Your task to perform on an android device: open wifi settings Image 0: 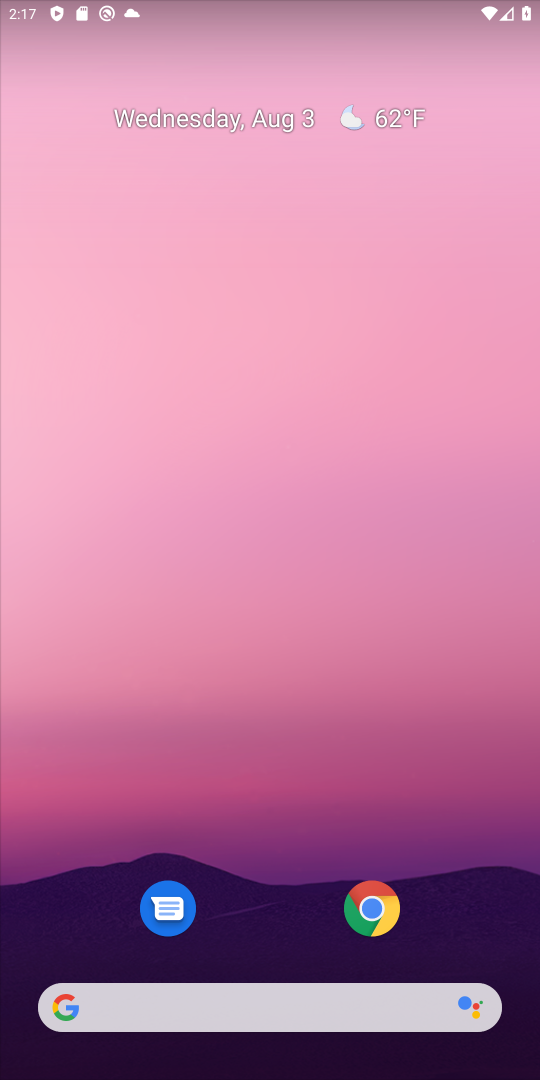
Step 0: drag from (230, 853) to (345, 305)
Your task to perform on an android device: open wifi settings Image 1: 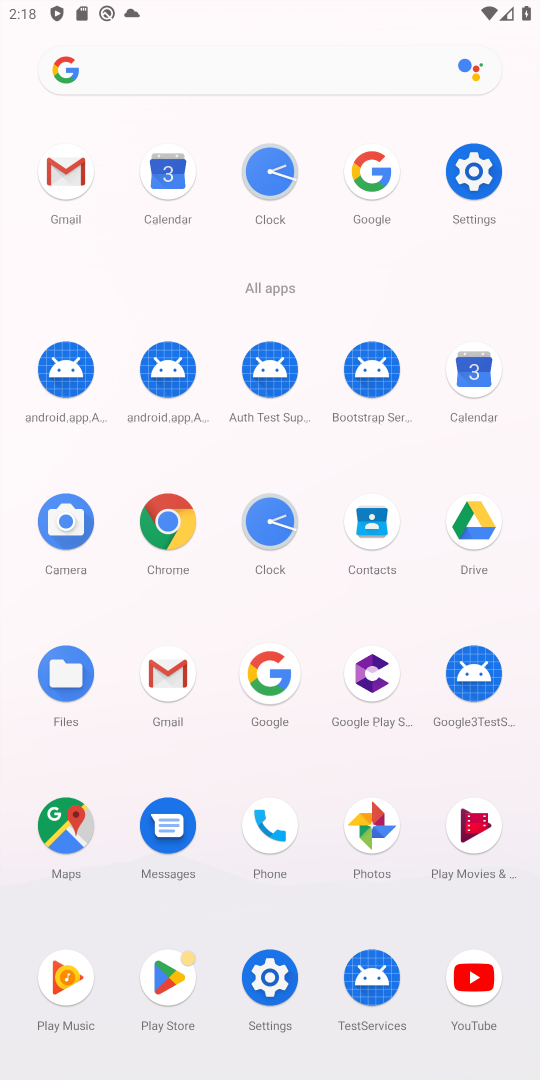
Step 1: click (472, 171)
Your task to perform on an android device: open wifi settings Image 2: 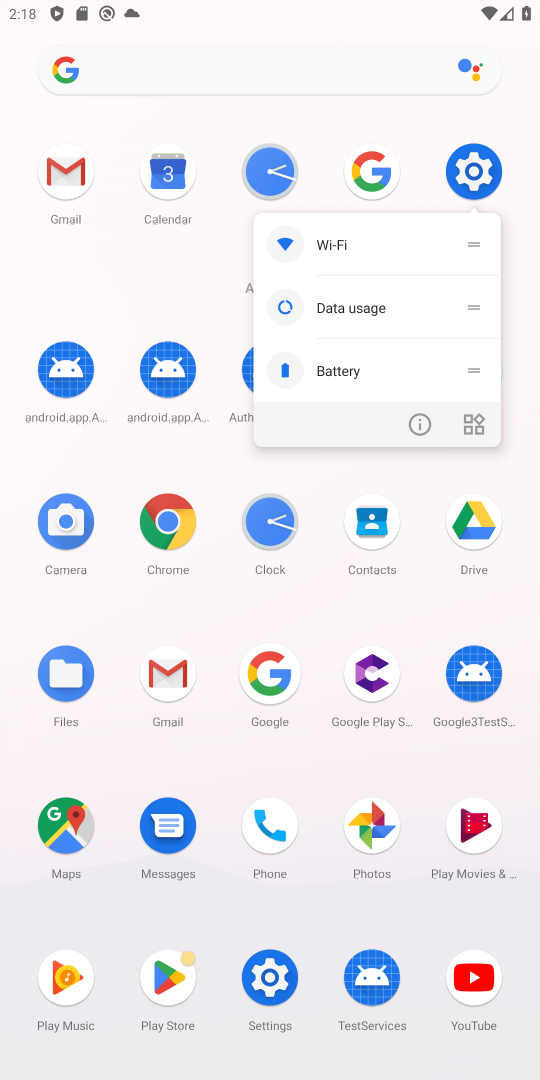
Step 2: click (472, 171)
Your task to perform on an android device: open wifi settings Image 3: 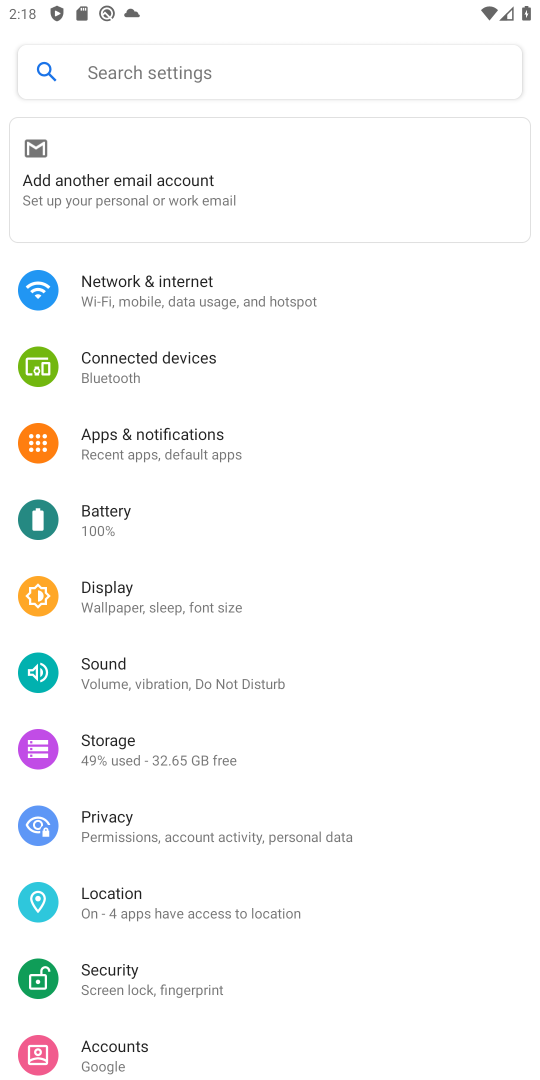
Step 3: click (213, 294)
Your task to perform on an android device: open wifi settings Image 4: 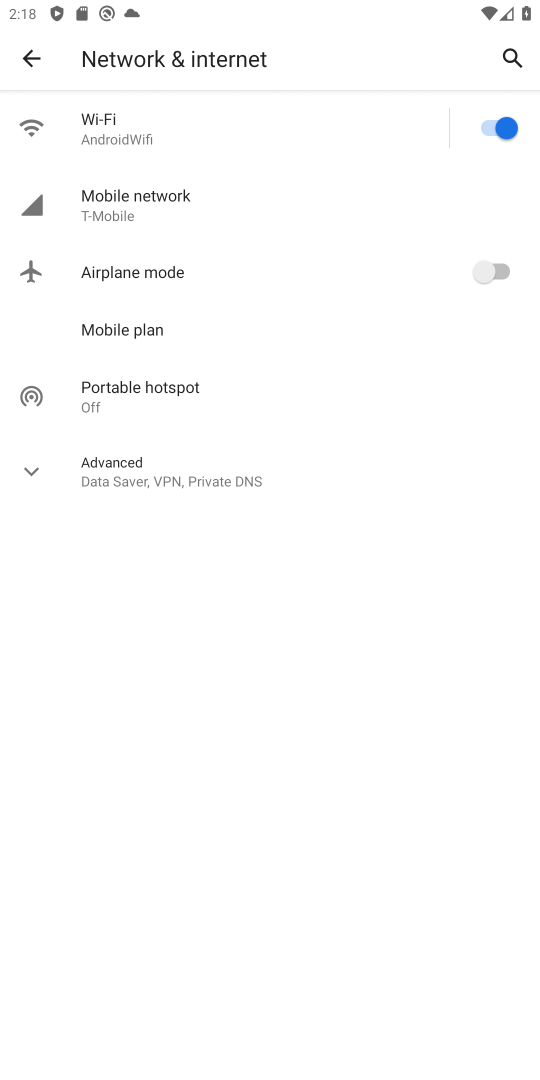
Step 4: click (229, 149)
Your task to perform on an android device: open wifi settings Image 5: 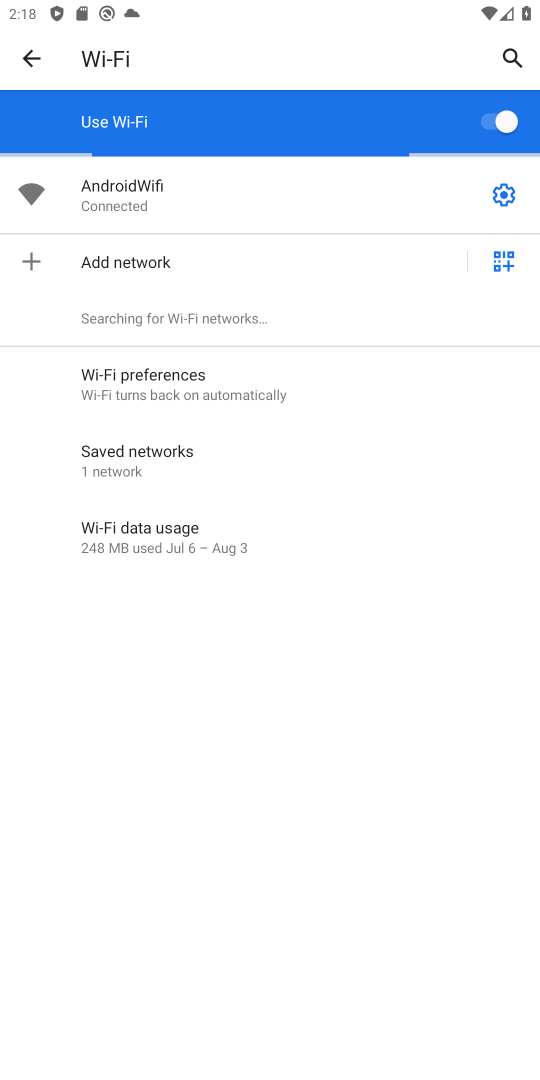
Step 5: click (503, 199)
Your task to perform on an android device: open wifi settings Image 6: 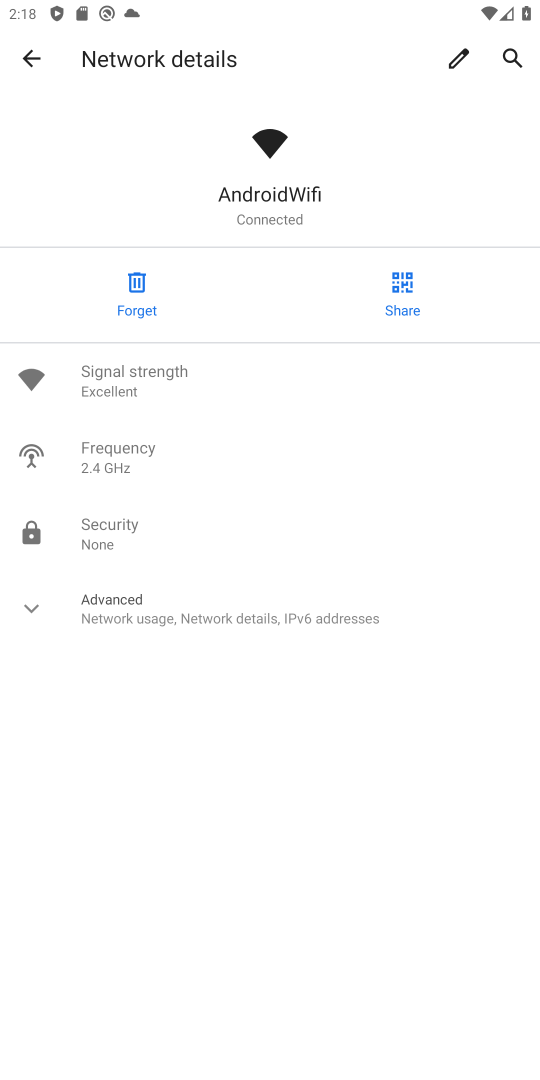
Step 6: task complete